Your task to perform on an android device: turn off sleep mode Image 0: 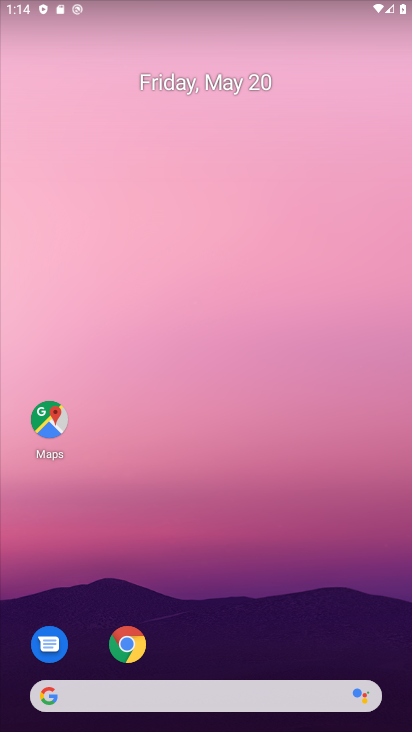
Step 0: drag from (191, 616) to (192, 231)
Your task to perform on an android device: turn off sleep mode Image 1: 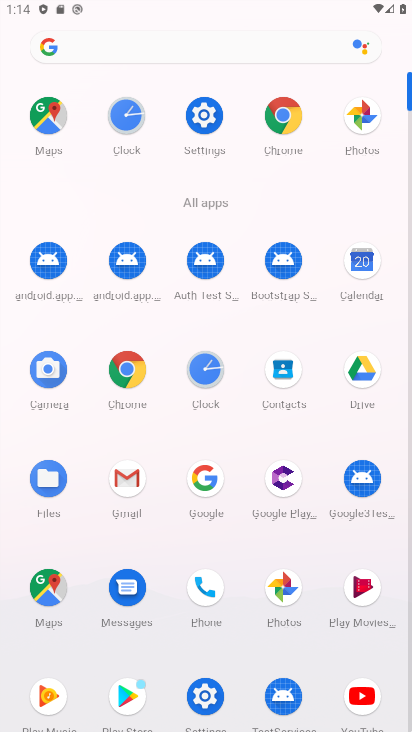
Step 1: drag from (223, 434) to (227, 92)
Your task to perform on an android device: turn off sleep mode Image 2: 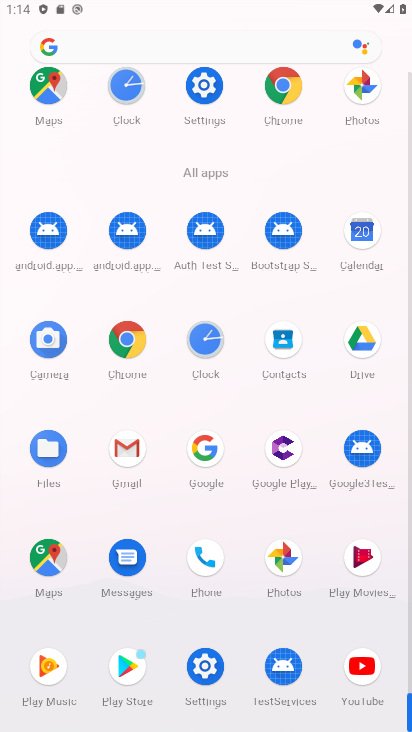
Step 2: drag from (229, 646) to (239, 125)
Your task to perform on an android device: turn off sleep mode Image 3: 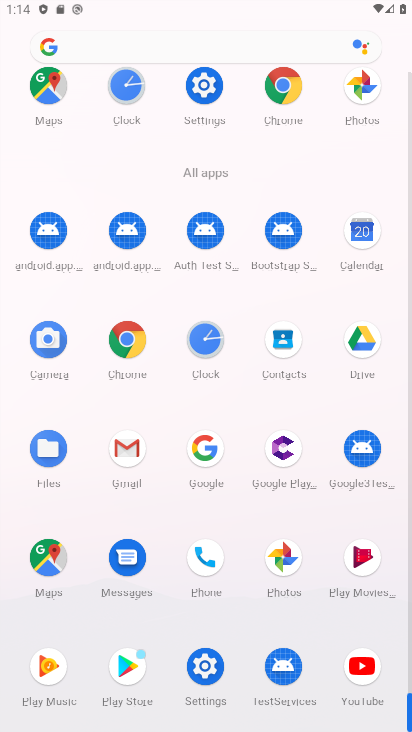
Step 3: click (219, 117)
Your task to perform on an android device: turn off sleep mode Image 4: 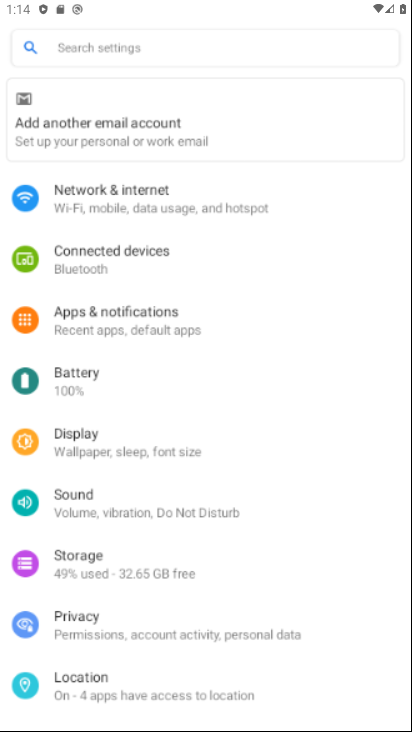
Step 4: click (207, 106)
Your task to perform on an android device: turn off sleep mode Image 5: 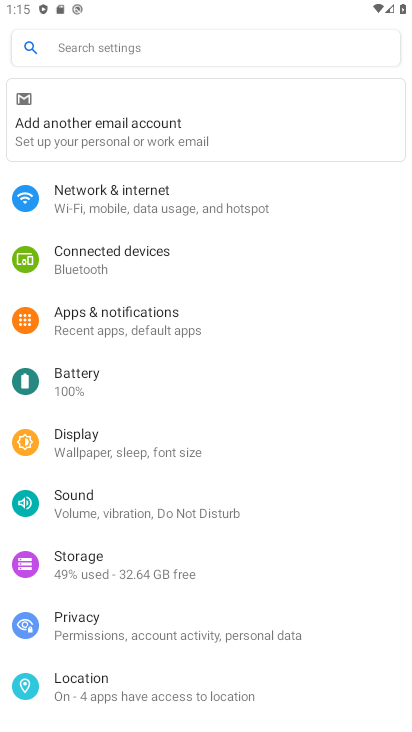
Step 5: task complete